Your task to perform on an android device: visit the assistant section in the google photos Image 0: 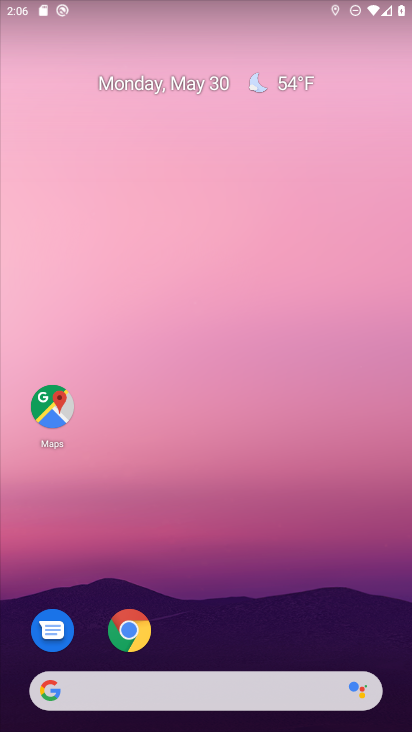
Step 0: drag from (234, 676) to (271, 132)
Your task to perform on an android device: visit the assistant section in the google photos Image 1: 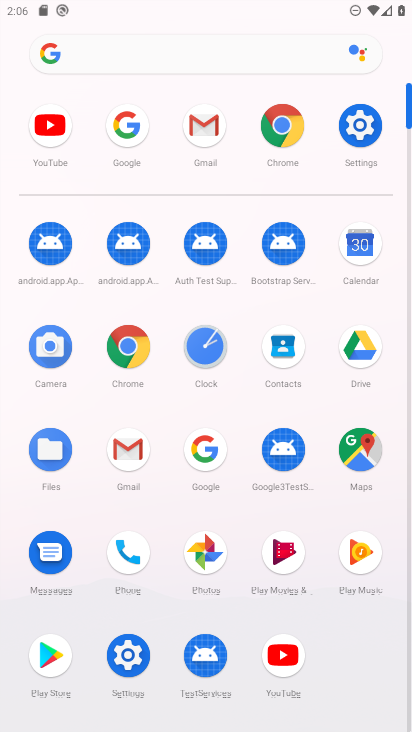
Step 1: click (222, 556)
Your task to perform on an android device: visit the assistant section in the google photos Image 2: 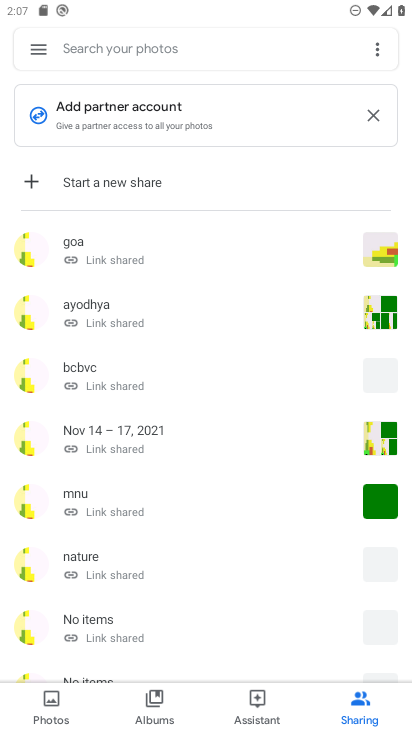
Step 2: click (249, 698)
Your task to perform on an android device: visit the assistant section in the google photos Image 3: 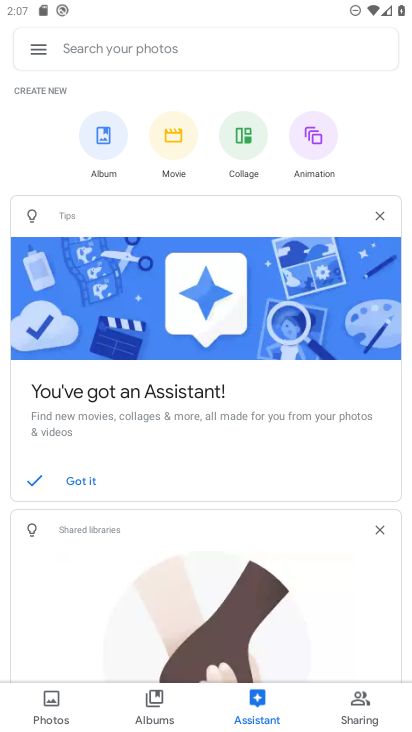
Step 3: task complete